Your task to perform on an android device: change text size in settings app Image 0: 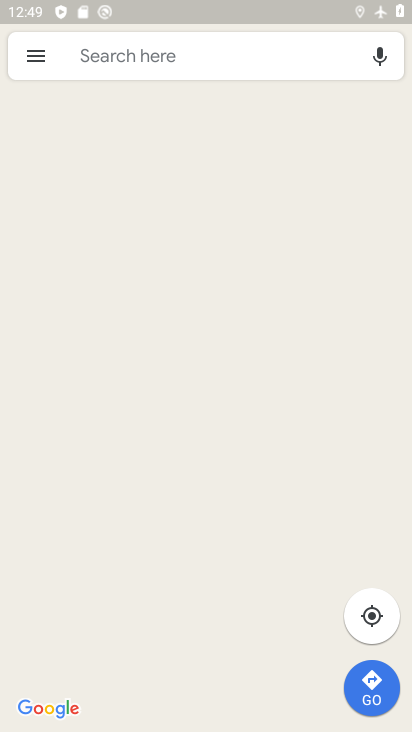
Step 0: press home button
Your task to perform on an android device: change text size in settings app Image 1: 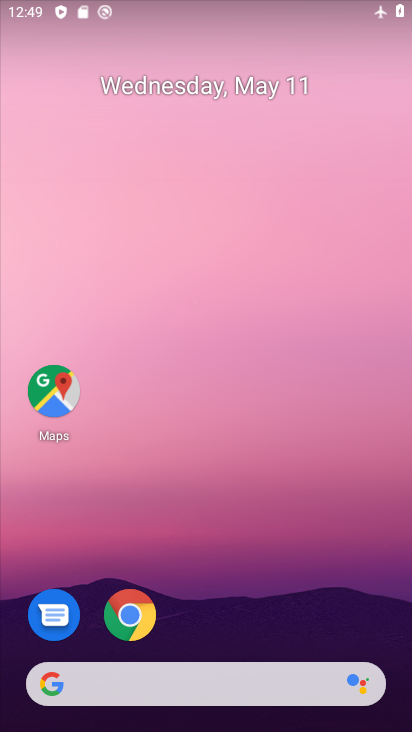
Step 1: drag from (378, 599) to (332, 164)
Your task to perform on an android device: change text size in settings app Image 2: 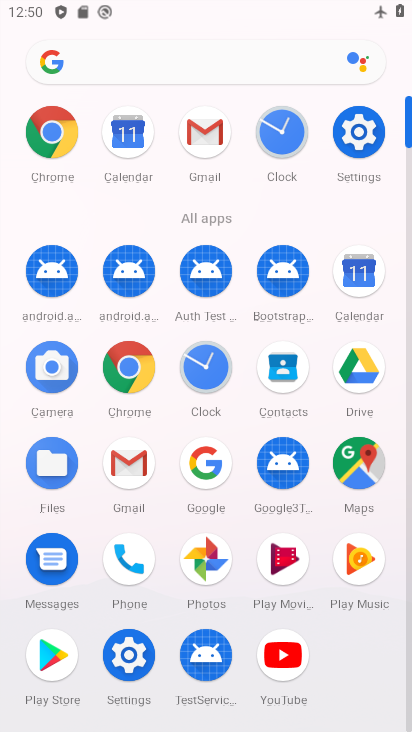
Step 2: click (131, 668)
Your task to perform on an android device: change text size in settings app Image 3: 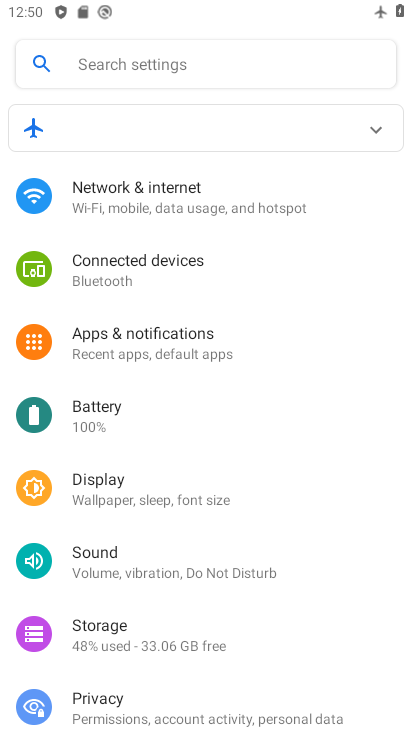
Step 3: click (121, 479)
Your task to perform on an android device: change text size in settings app Image 4: 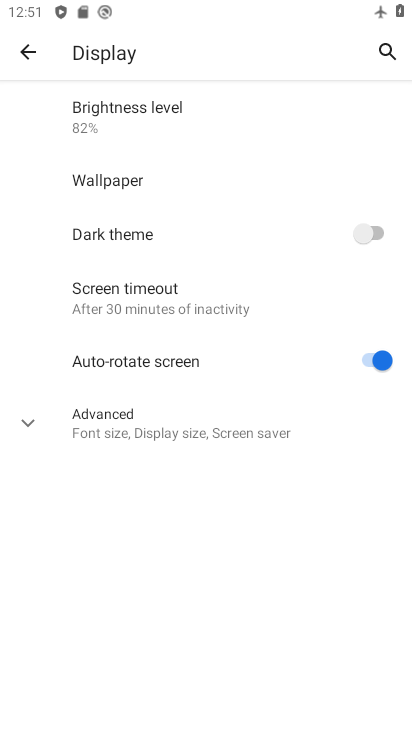
Step 4: click (91, 423)
Your task to perform on an android device: change text size in settings app Image 5: 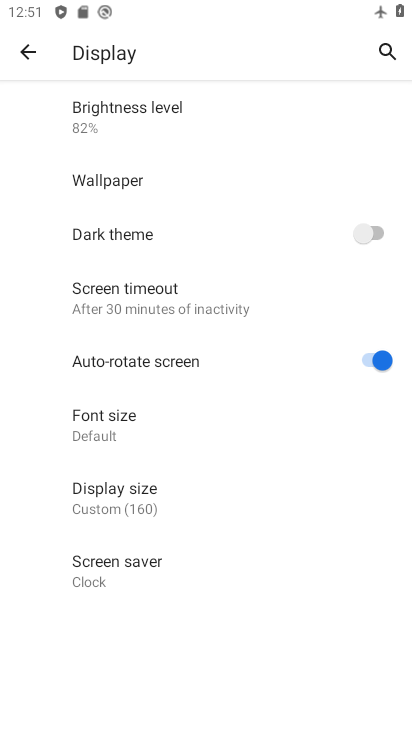
Step 5: click (99, 415)
Your task to perform on an android device: change text size in settings app Image 6: 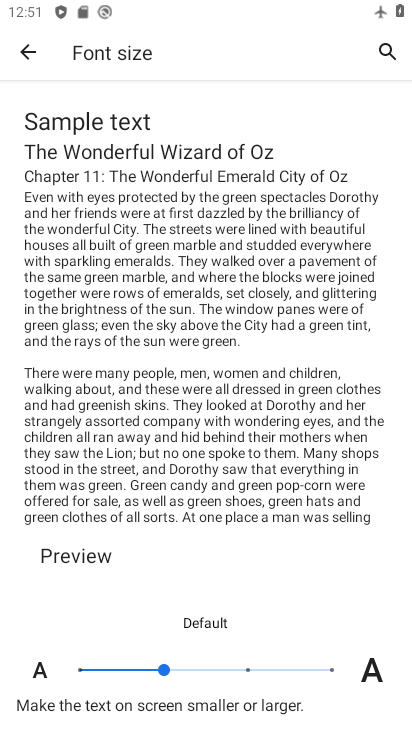
Step 6: click (79, 671)
Your task to perform on an android device: change text size in settings app Image 7: 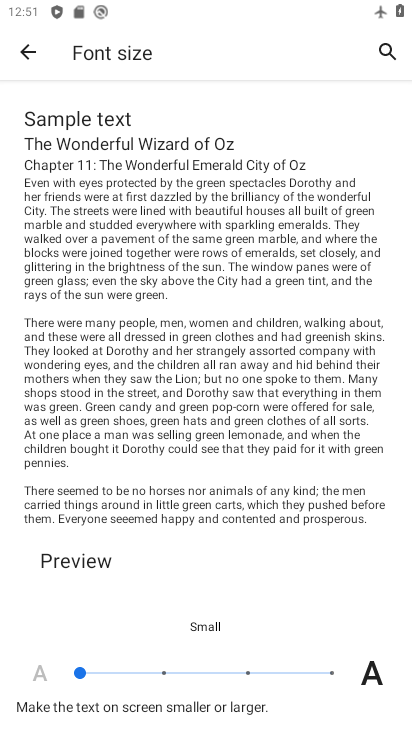
Step 7: task complete